Your task to perform on an android device: Set an alarm for 7pm Image 0: 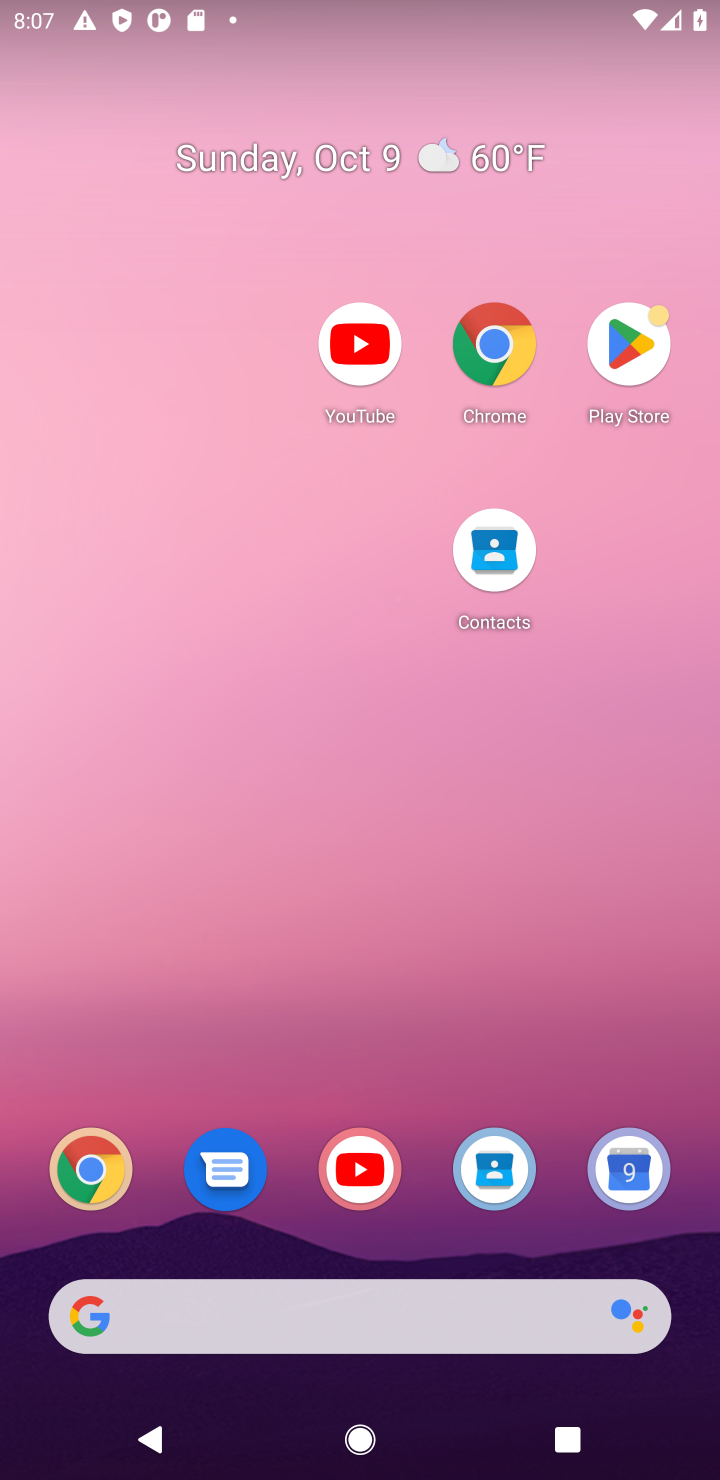
Step 0: drag from (425, 1246) to (360, 292)
Your task to perform on an android device: Set an alarm for 7pm Image 1: 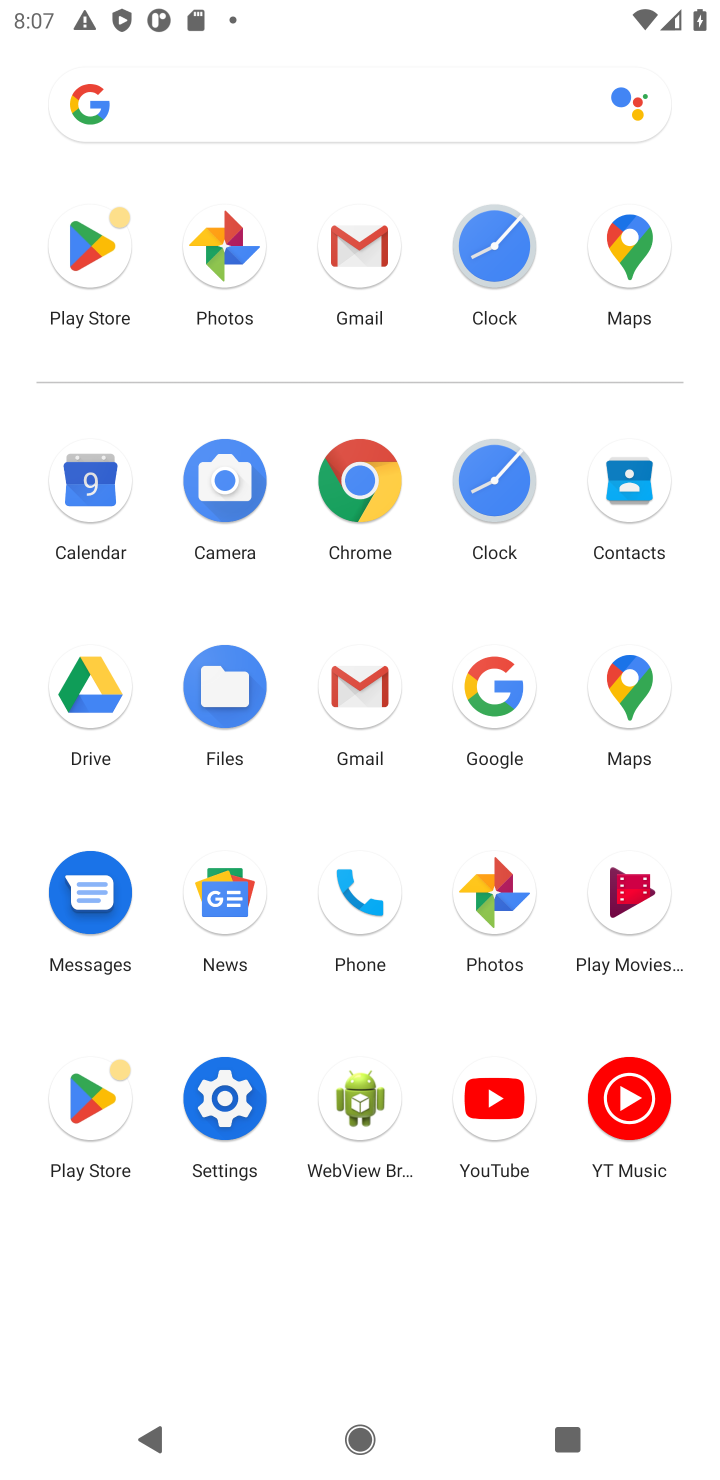
Step 1: click (508, 479)
Your task to perform on an android device: Set an alarm for 7pm Image 2: 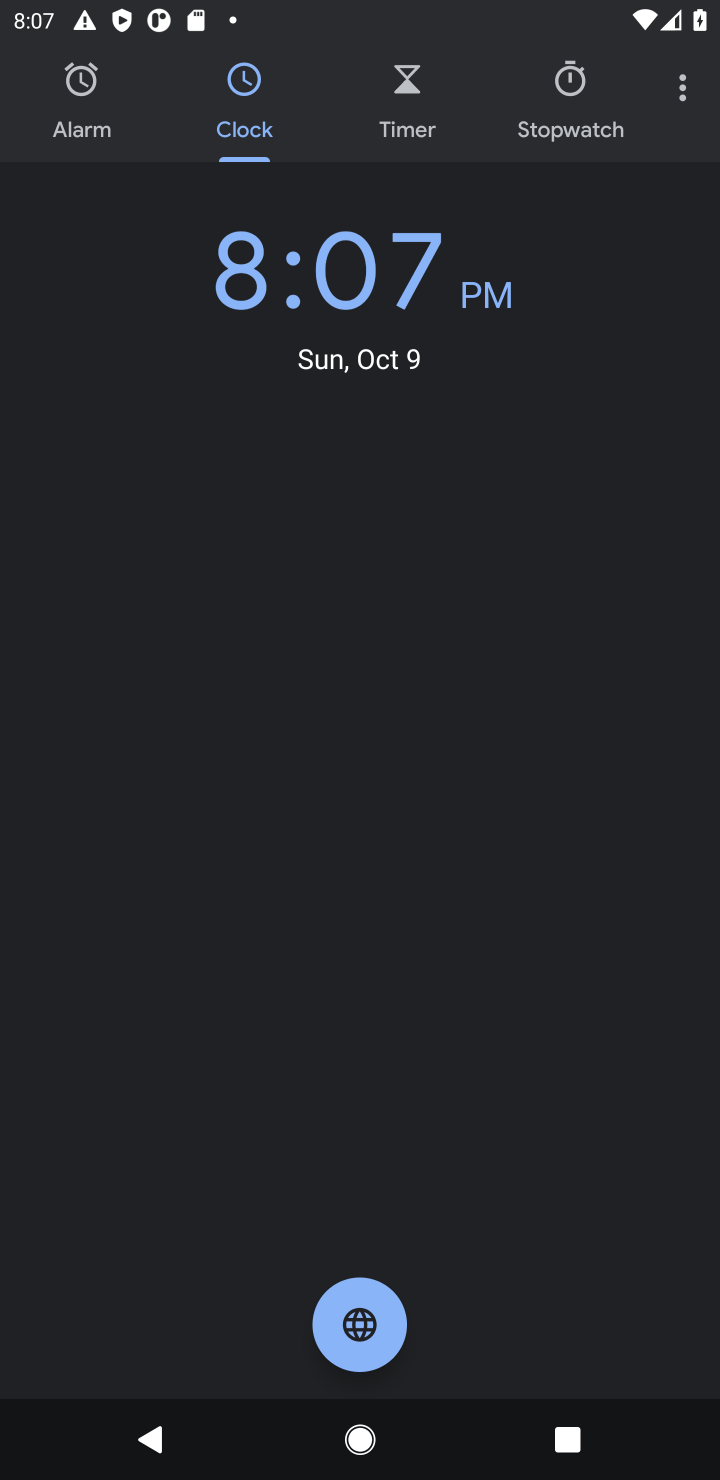
Step 2: click (78, 86)
Your task to perform on an android device: Set an alarm for 7pm Image 3: 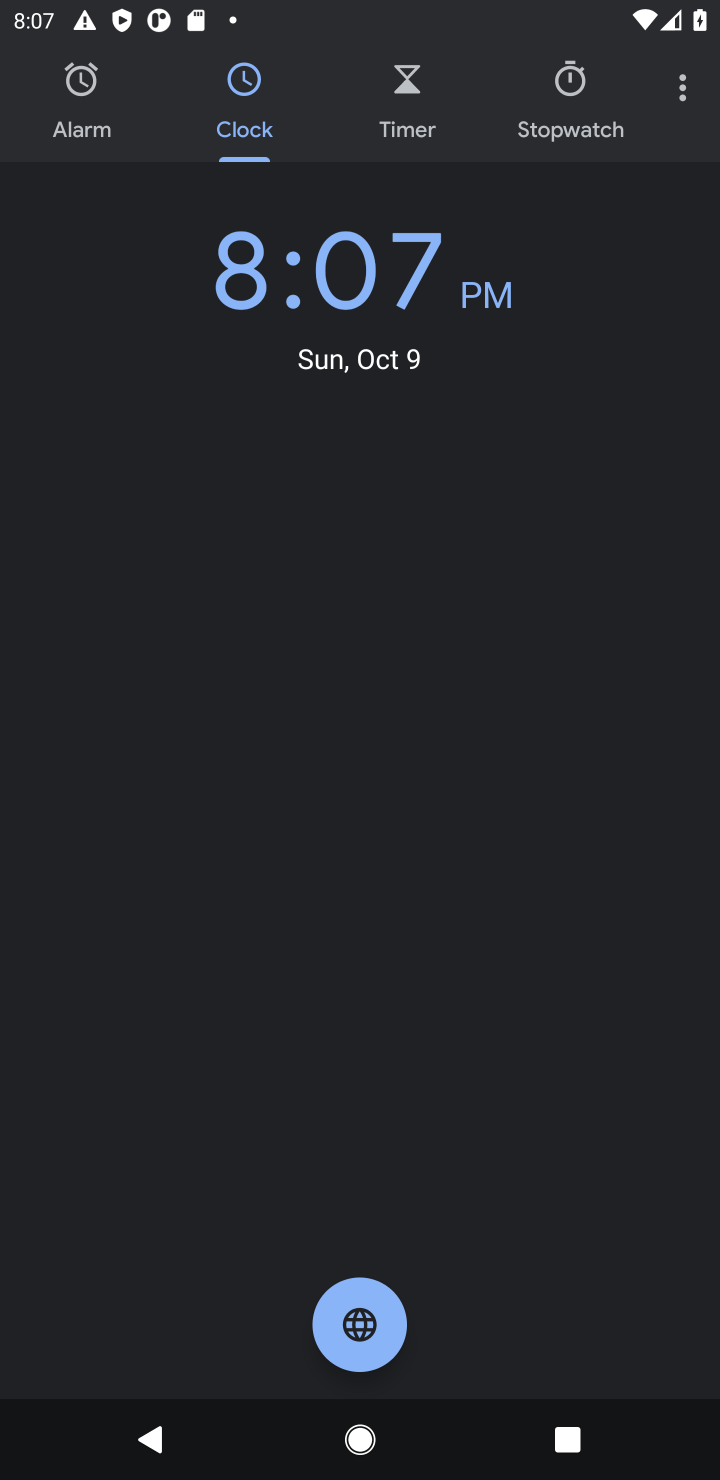
Step 3: click (97, 102)
Your task to perform on an android device: Set an alarm for 7pm Image 4: 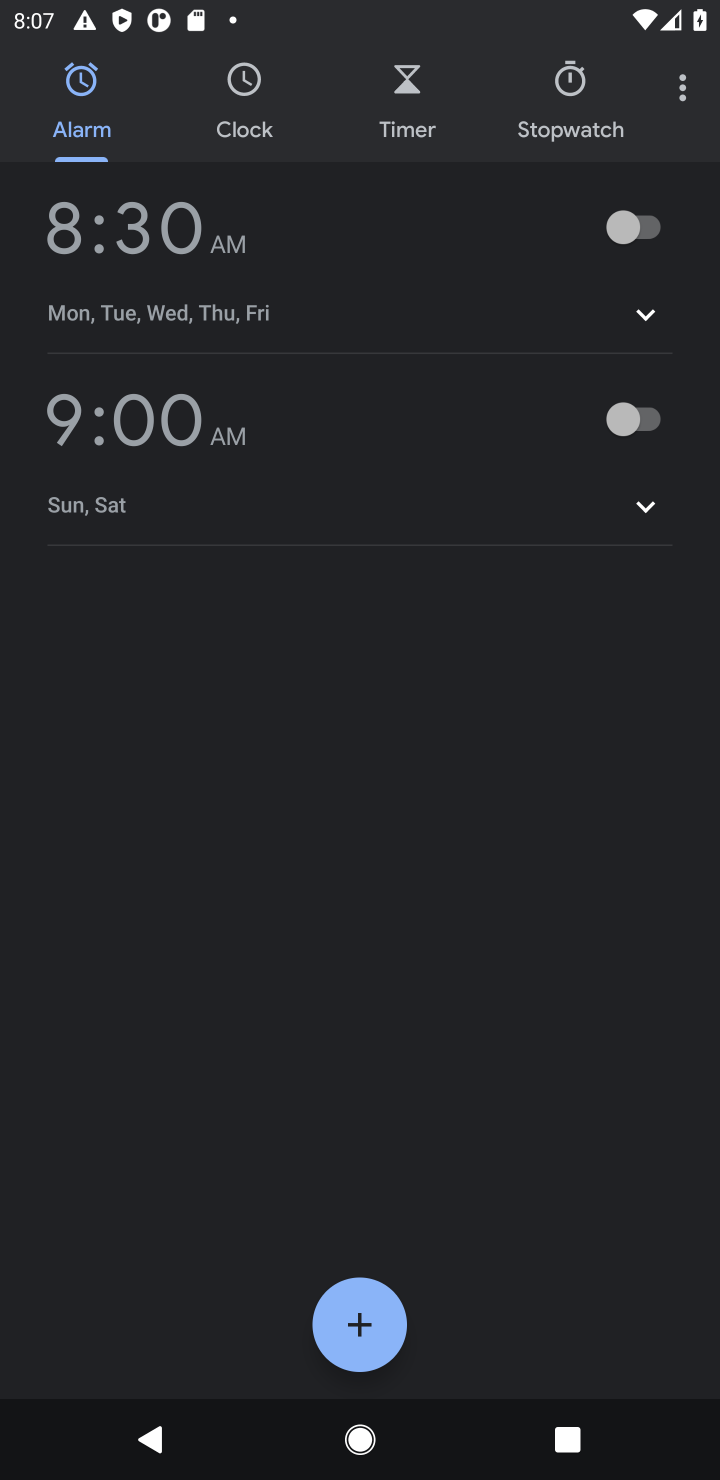
Step 4: click (377, 1318)
Your task to perform on an android device: Set an alarm for 7pm Image 5: 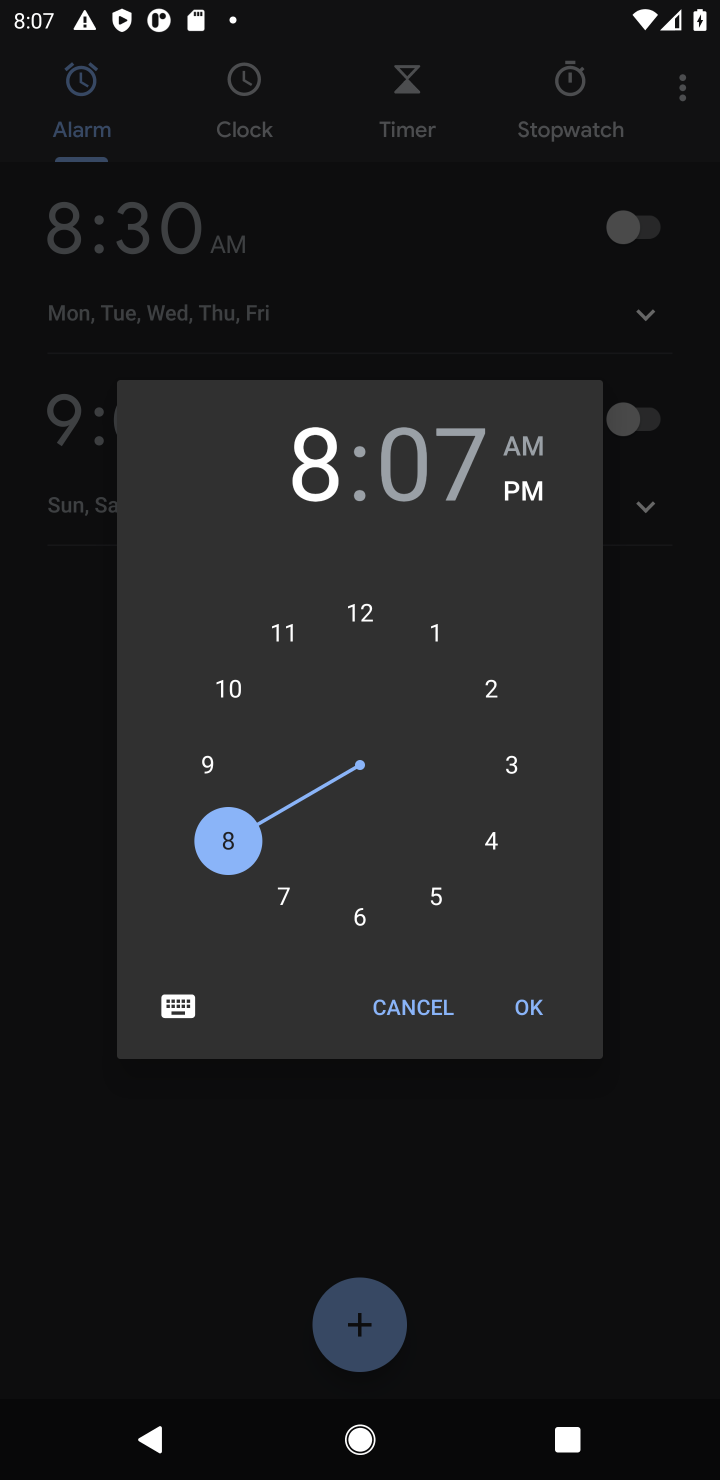
Step 5: click (285, 893)
Your task to perform on an android device: Set an alarm for 7pm Image 6: 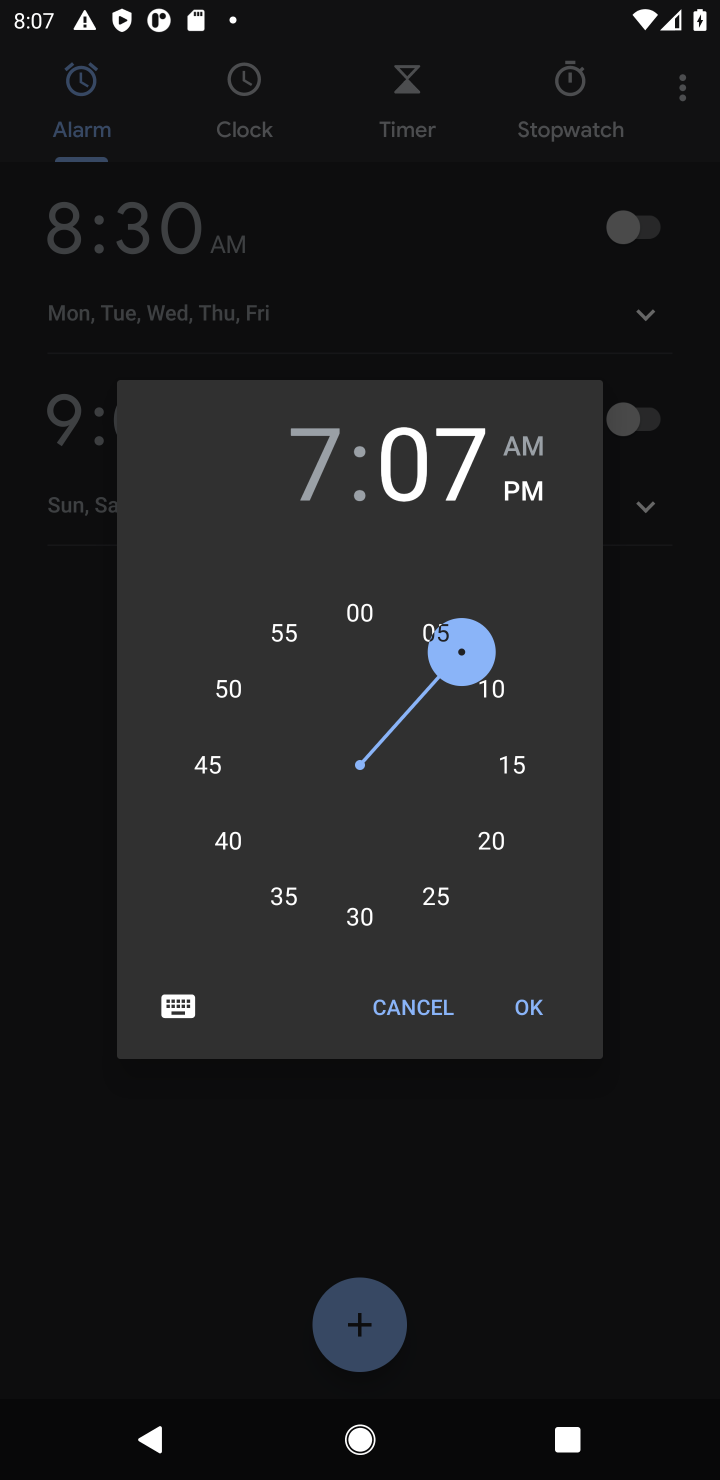
Step 6: click (350, 606)
Your task to perform on an android device: Set an alarm for 7pm Image 7: 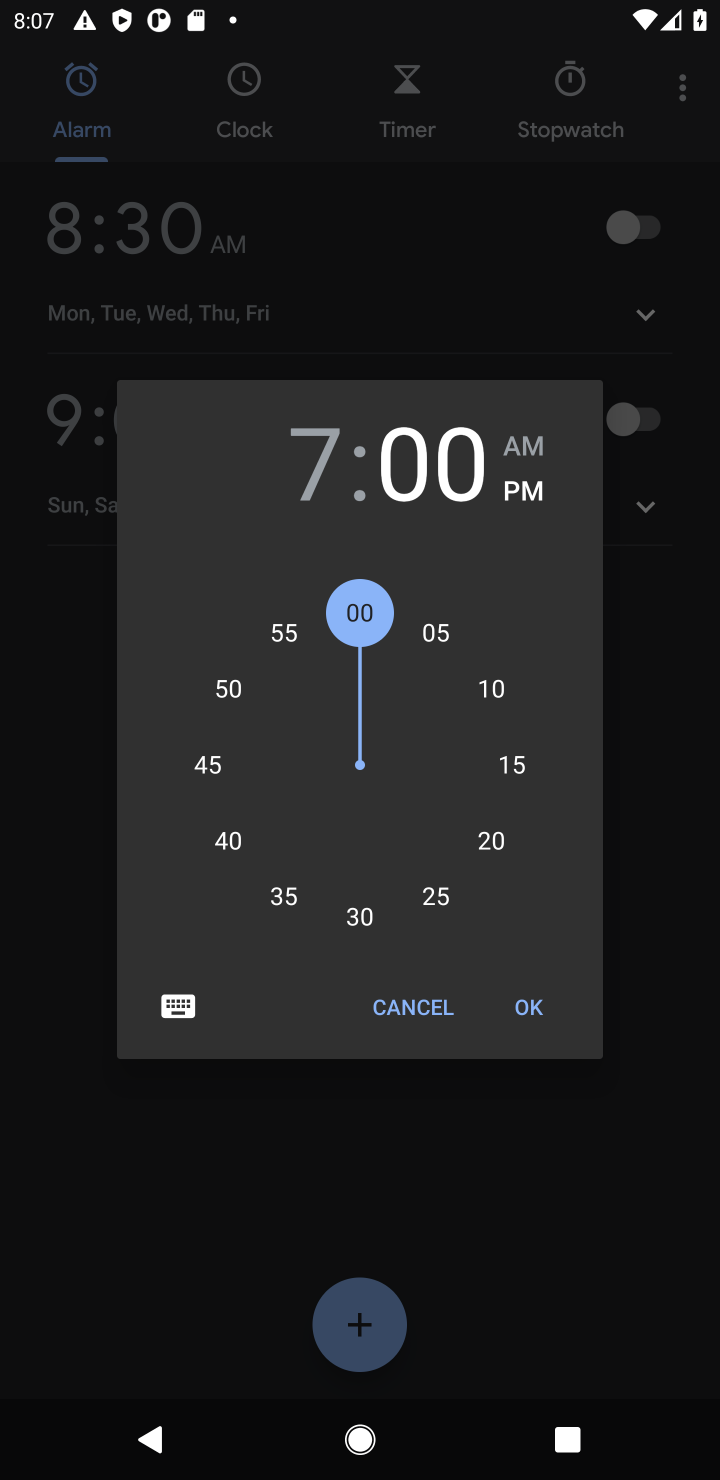
Step 7: click (540, 1004)
Your task to perform on an android device: Set an alarm for 7pm Image 8: 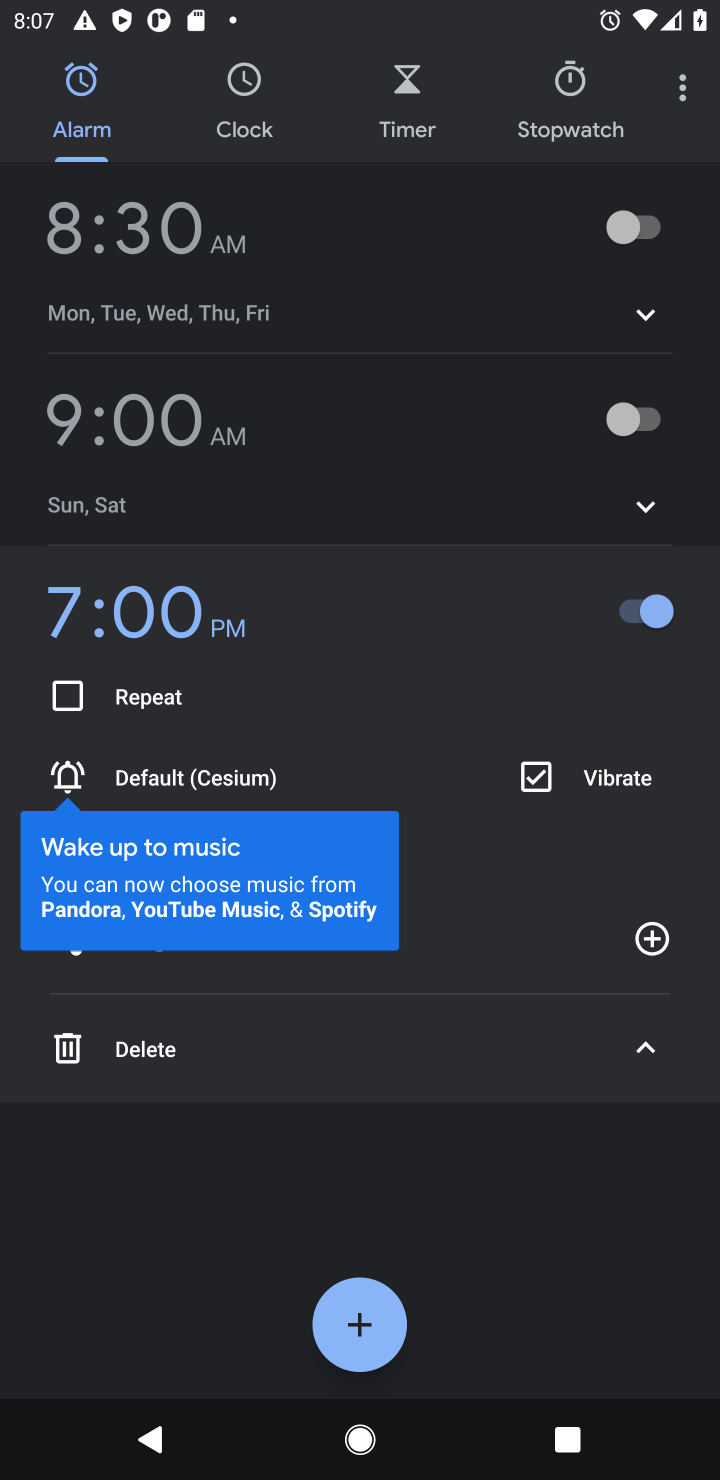
Step 8: task complete